Your task to perform on an android device: Go to calendar. Show me events next week Image 0: 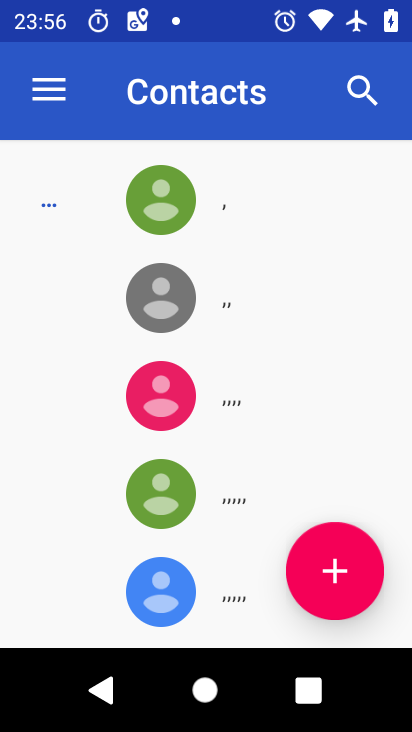
Step 0: press home button
Your task to perform on an android device: Go to calendar. Show me events next week Image 1: 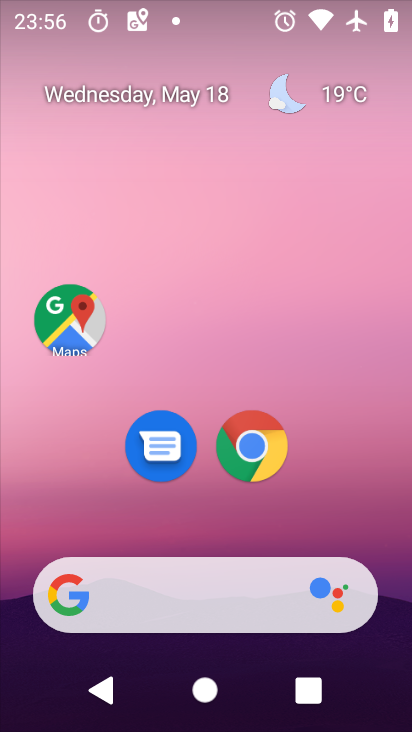
Step 1: drag from (184, 604) to (283, 135)
Your task to perform on an android device: Go to calendar. Show me events next week Image 2: 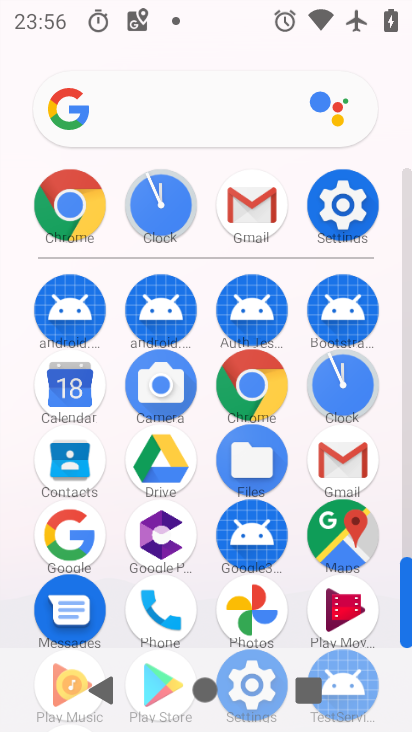
Step 2: click (74, 394)
Your task to perform on an android device: Go to calendar. Show me events next week Image 3: 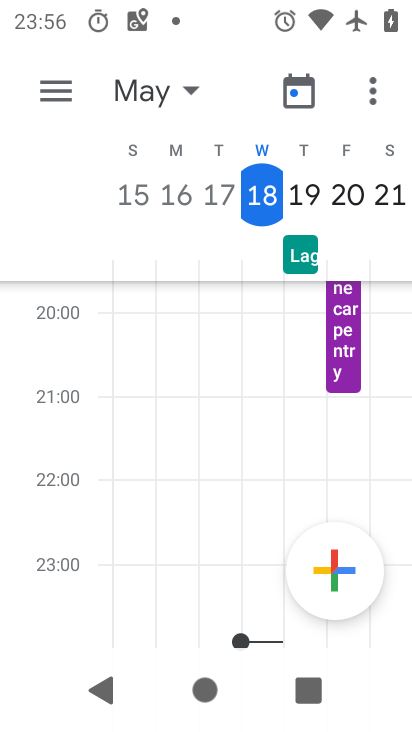
Step 3: click (144, 94)
Your task to perform on an android device: Go to calendar. Show me events next week Image 4: 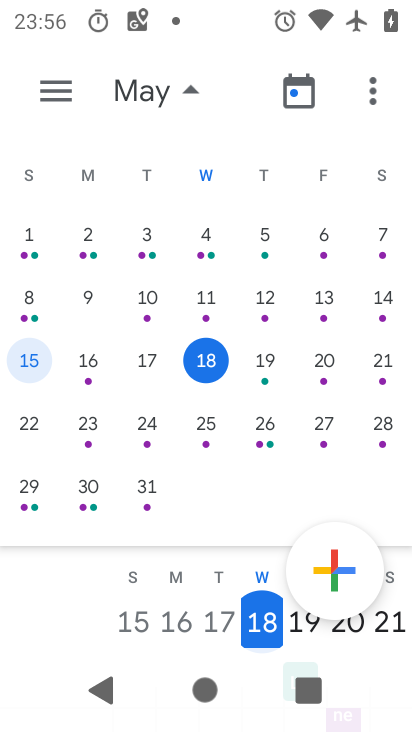
Step 4: click (36, 421)
Your task to perform on an android device: Go to calendar. Show me events next week Image 5: 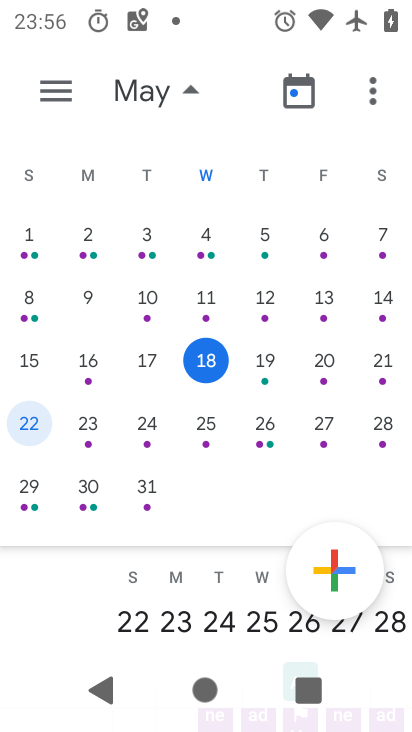
Step 5: click (64, 95)
Your task to perform on an android device: Go to calendar. Show me events next week Image 6: 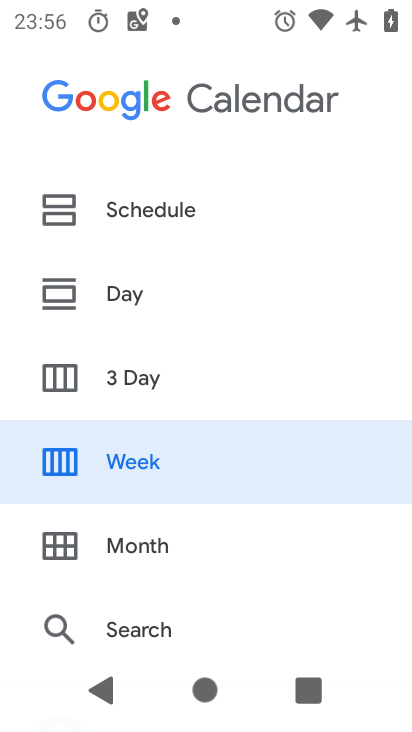
Step 6: click (137, 221)
Your task to perform on an android device: Go to calendar. Show me events next week Image 7: 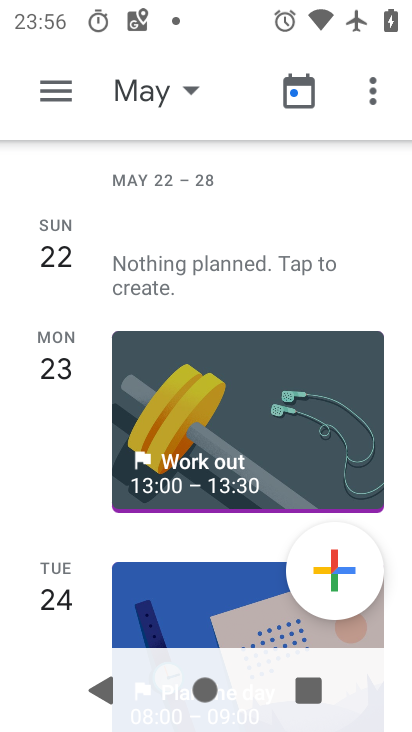
Step 7: click (65, 92)
Your task to perform on an android device: Go to calendar. Show me events next week Image 8: 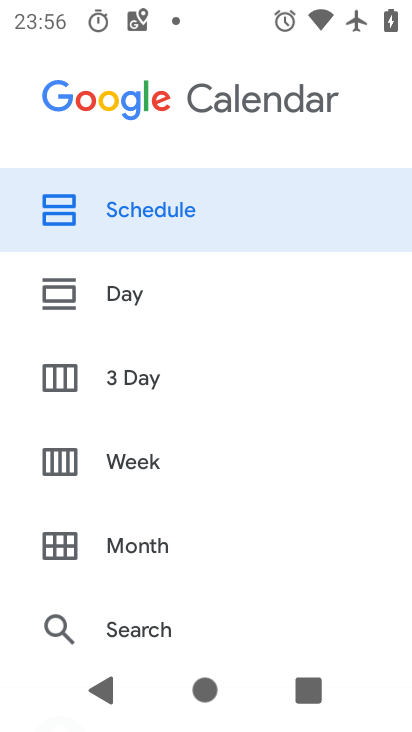
Step 8: click (142, 466)
Your task to perform on an android device: Go to calendar. Show me events next week Image 9: 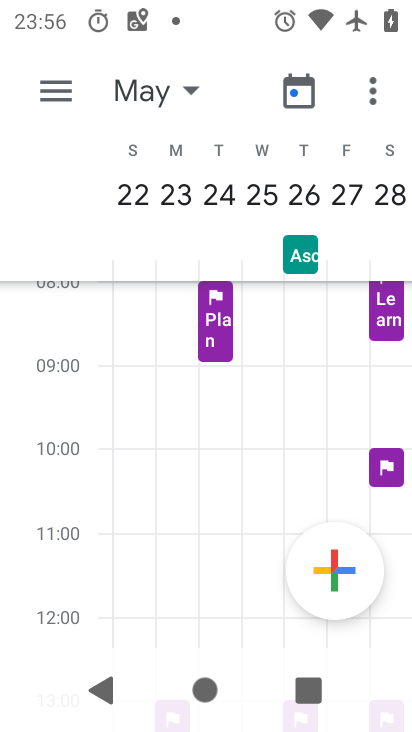
Step 9: click (56, 87)
Your task to perform on an android device: Go to calendar. Show me events next week Image 10: 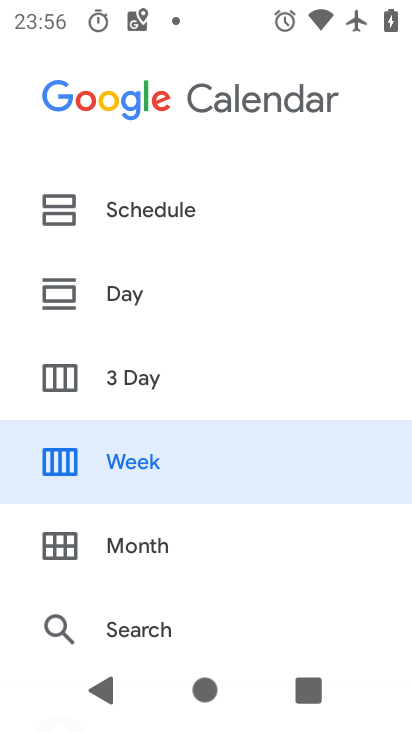
Step 10: click (164, 212)
Your task to perform on an android device: Go to calendar. Show me events next week Image 11: 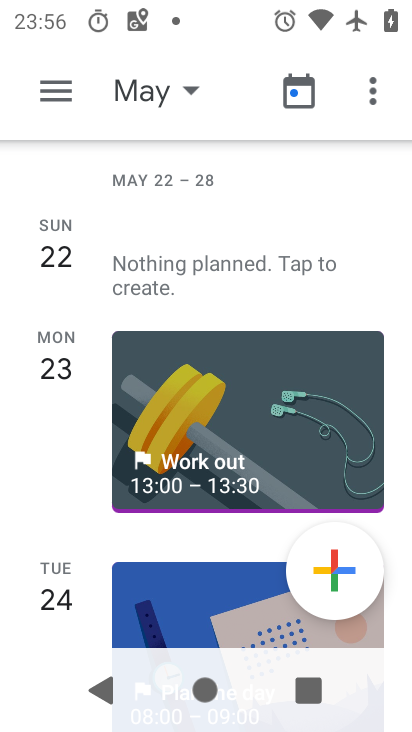
Step 11: drag from (171, 538) to (320, 115)
Your task to perform on an android device: Go to calendar. Show me events next week Image 12: 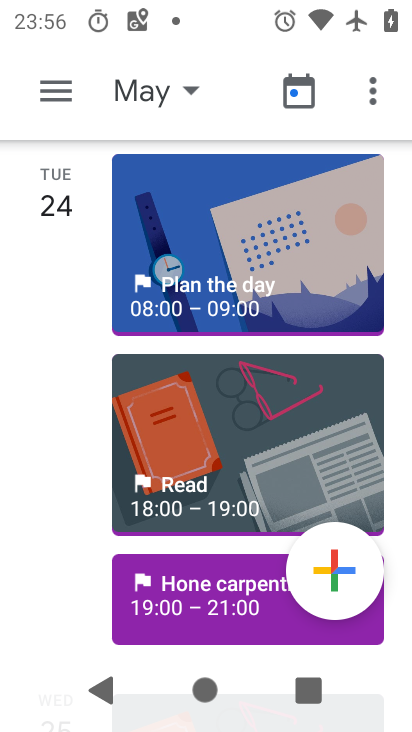
Step 12: drag from (133, 588) to (277, 254)
Your task to perform on an android device: Go to calendar. Show me events next week Image 13: 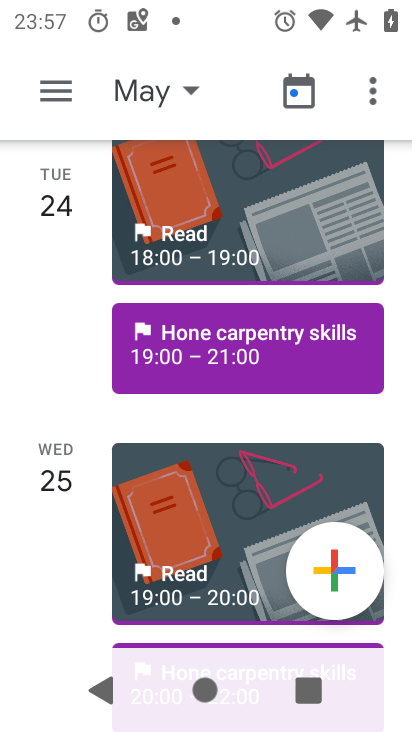
Step 13: click (228, 350)
Your task to perform on an android device: Go to calendar. Show me events next week Image 14: 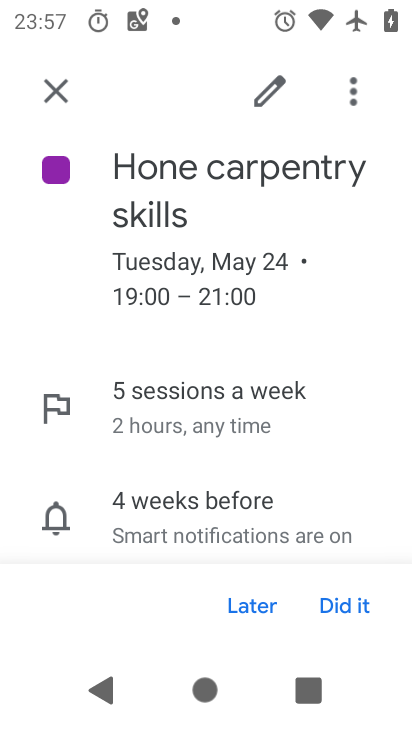
Step 14: task complete